Your task to perform on an android device: Search for Mexican restaurants on Maps Image 0: 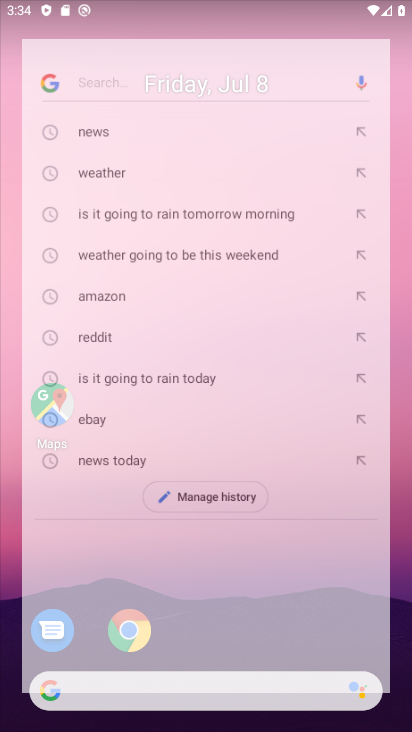
Step 0: drag from (249, 573) to (177, 24)
Your task to perform on an android device: Search for Mexican restaurants on Maps Image 1: 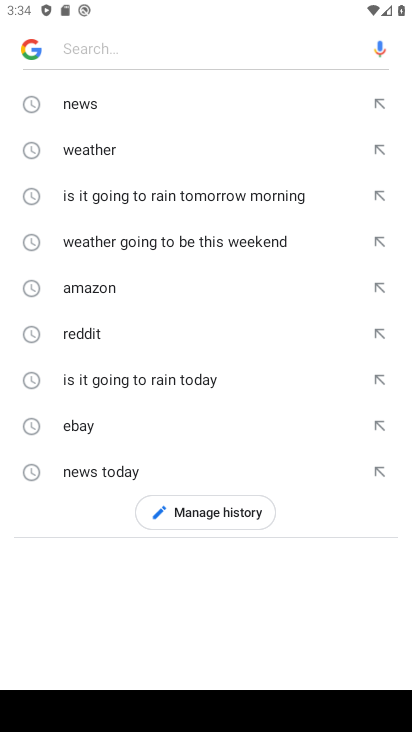
Step 1: press home button
Your task to perform on an android device: Search for Mexican restaurants on Maps Image 2: 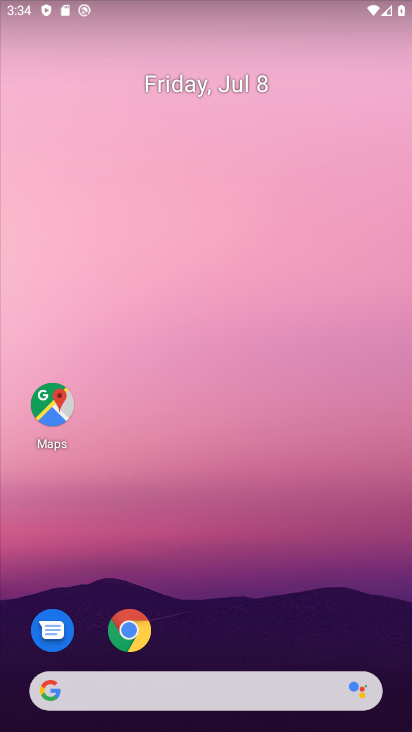
Step 2: click (45, 404)
Your task to perform on an android device: Search for Mexican restaurants on Maps Image 3: 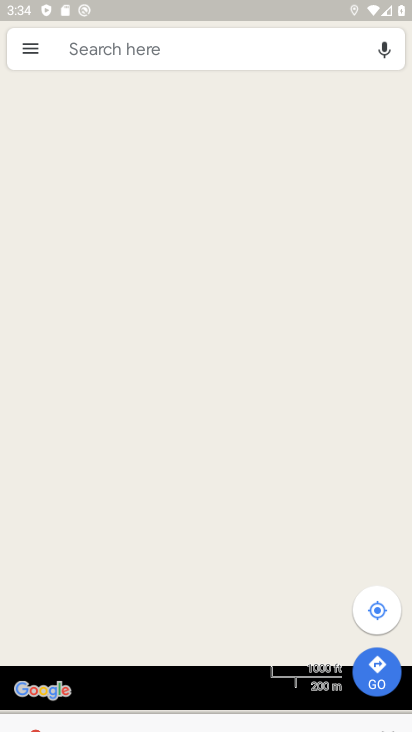
Step 3: click (219, 45)
Your task to perform on an android device: Search for Mexican restaurants on Maps Image 4: 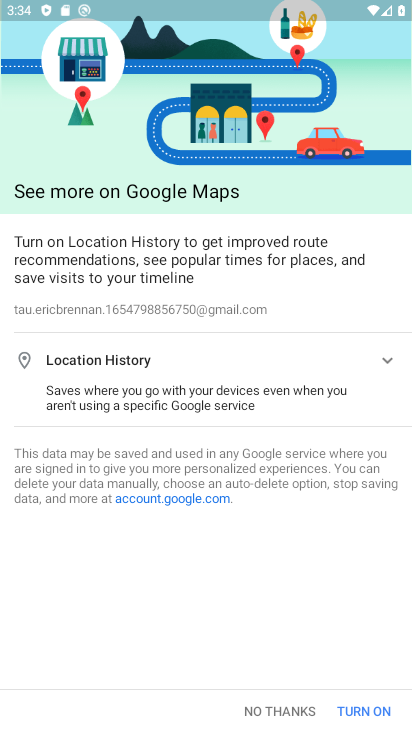
Step 4: type "mexican restaurants"
Your task to perform on an android device: Search for Mexican restaurants on Maps Image 5: 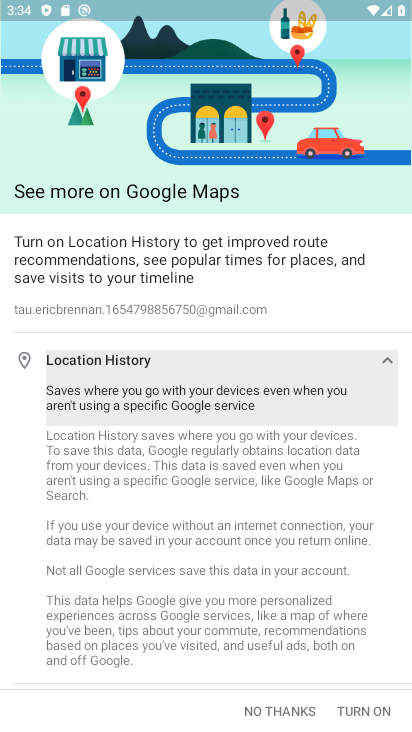
Step 5: click (293, 700)
Your task to perform on an android device: Search for Mexican restaurants on Maps Image 6: 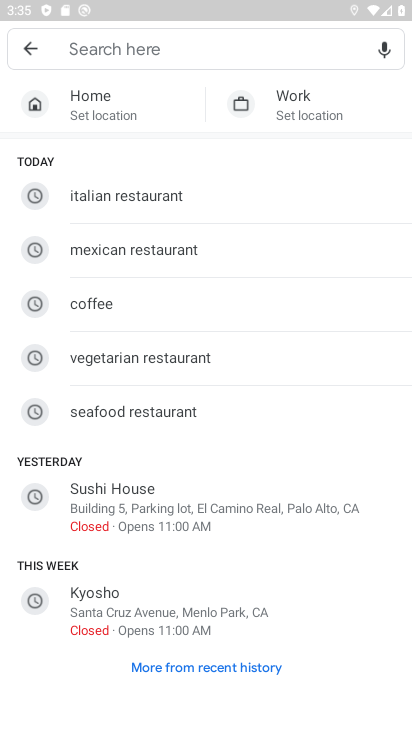
Step 6: click (149, 53)
Your task to perform on an android device: Search for Mexican restaurants on Maps Image 7: 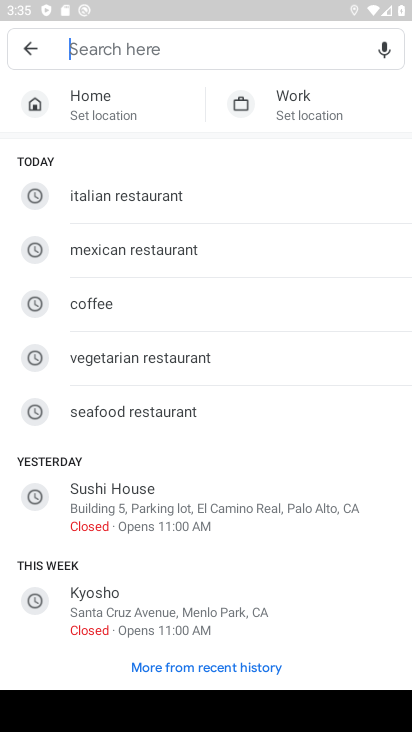
Step 7: type "mexican restaurants"
Your task to perform on an android device: Search for Mexican restaurants on Maps Image 8: 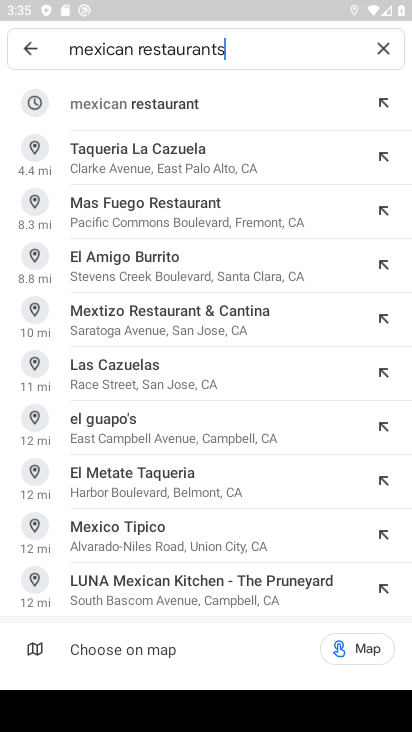
Step 8: click (146, 105)
Your task to perform on an android device: Search for Mexican restaurants on Maps Image 9: 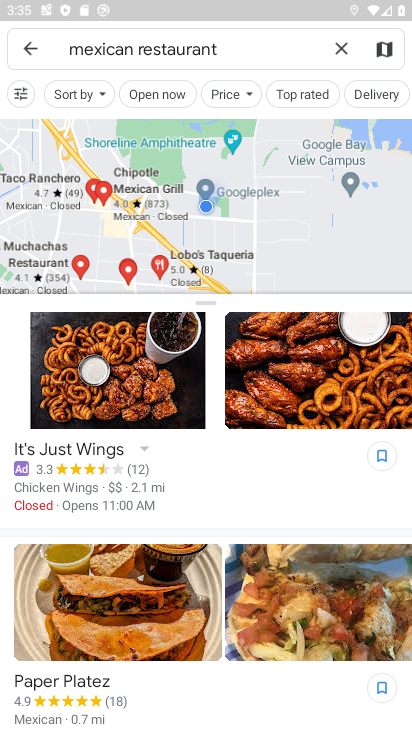
Step 9: task complete